Your task to perform on an android device: move a message to another label in the gmail app Image 0: 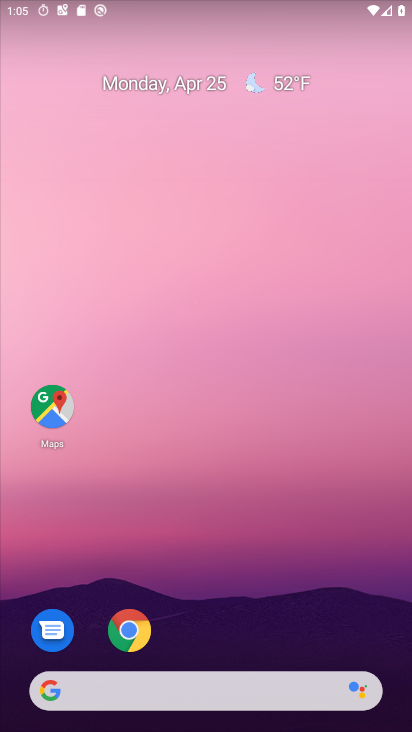
Step 0: drag from (247, 618) to (367, 0)
Your task to perform on an android device: move a message to another label in the gmail app Image 1: 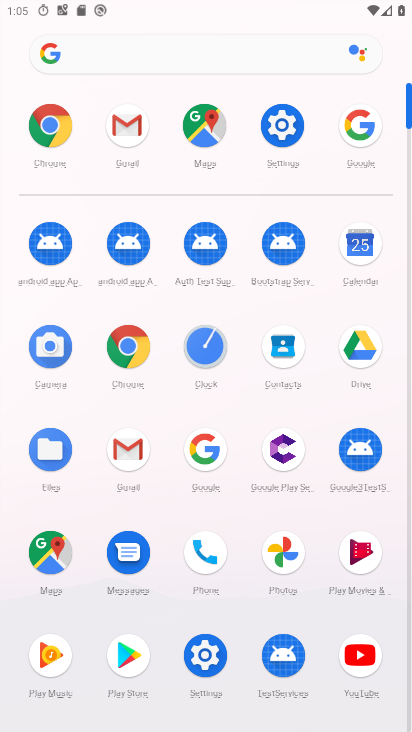
Step 1: click (115, 451)
Your task to perform on an android device: move a message to another label in the gmail app Image 2: 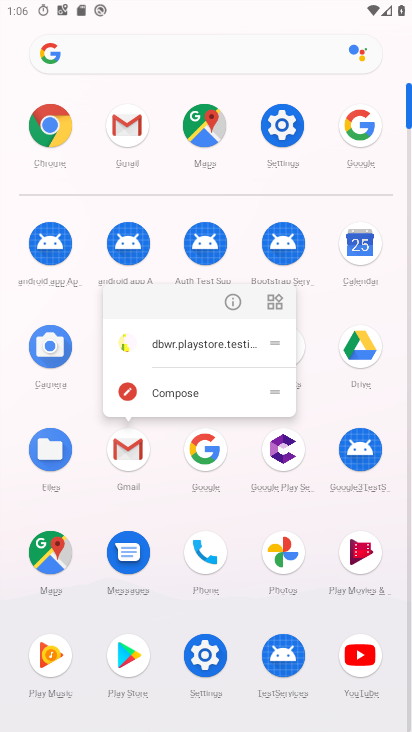
Step 2: click (226, 300)
Your task to perform on an android device: move a message to another label in the gmail app Image 3: 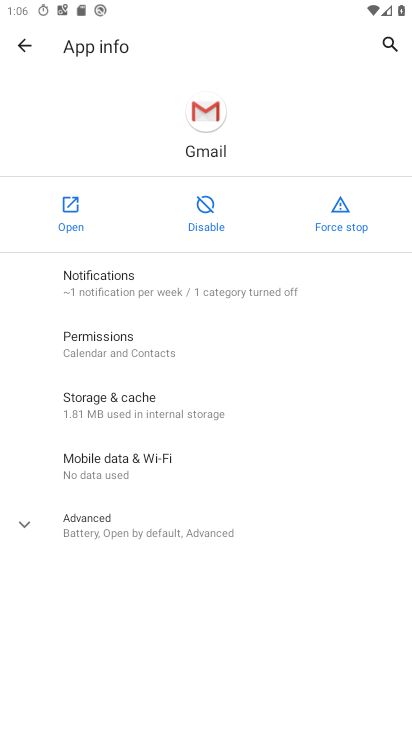
Step 3: click (83, 223)
Your task to perform on an android device: move a message to another label in the gmail app Image 4: 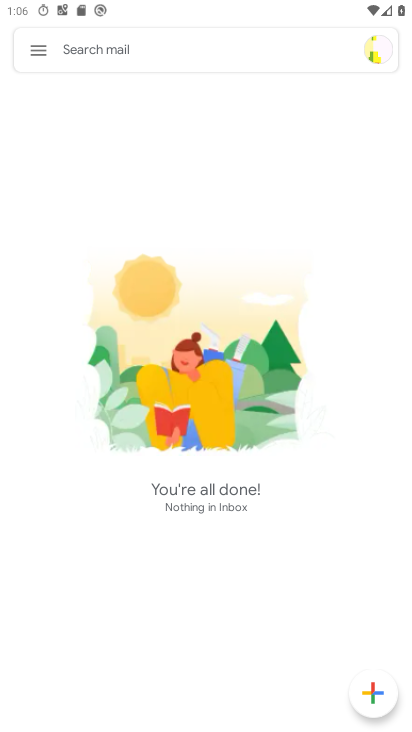
Step 4: task complete